Your task to perform on an android device: check storage Image 0: 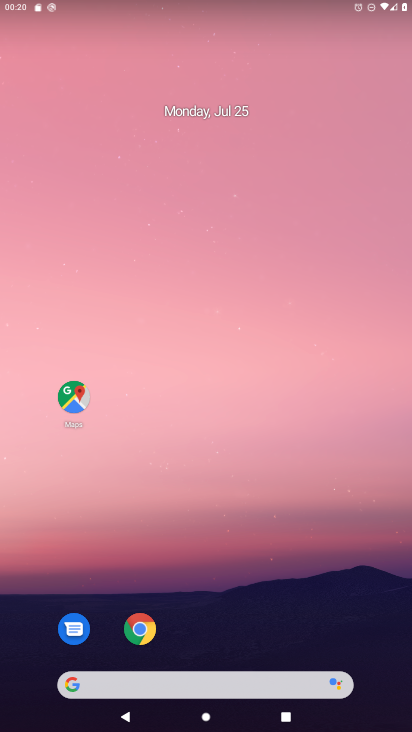
Step 0: drag from (196, 644) to (261, 236)
Your task to perform on an android device: check storage Image 1: 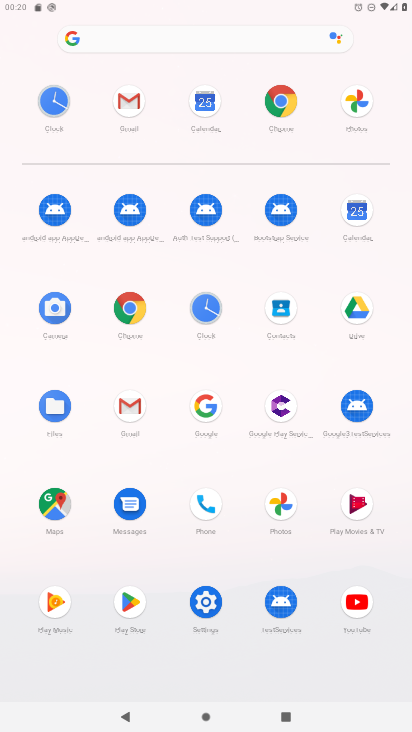
Step 1: click (202, 602)
Your task to perform on an android device: check storage Image 2: 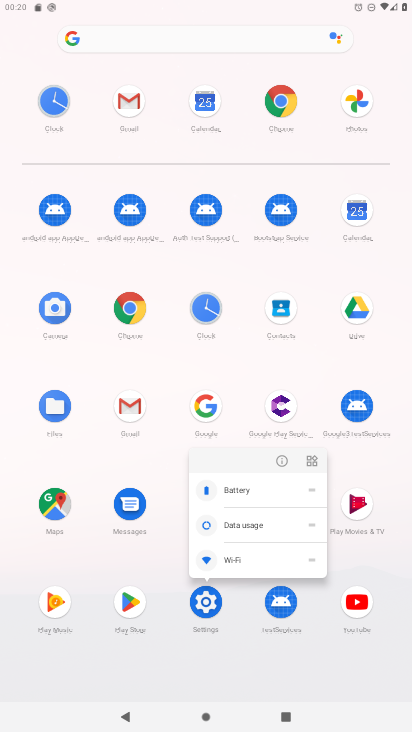
Step 2: click (283, 460)
Your task to perform on an android device: check storage Image 3: 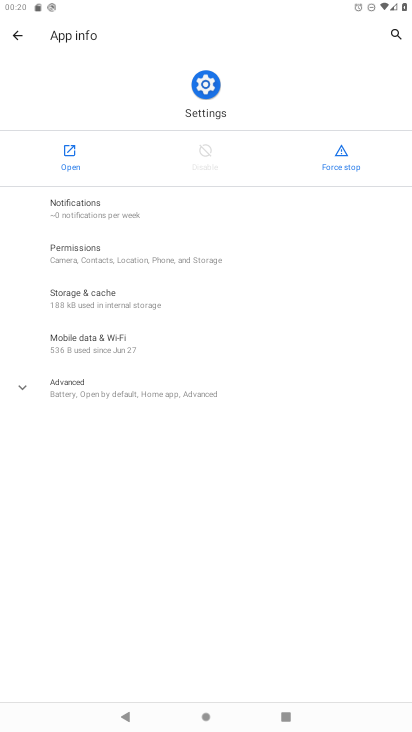
Step 3: click (66, 154)
Your task to perform on an android device: check storage Image 4: 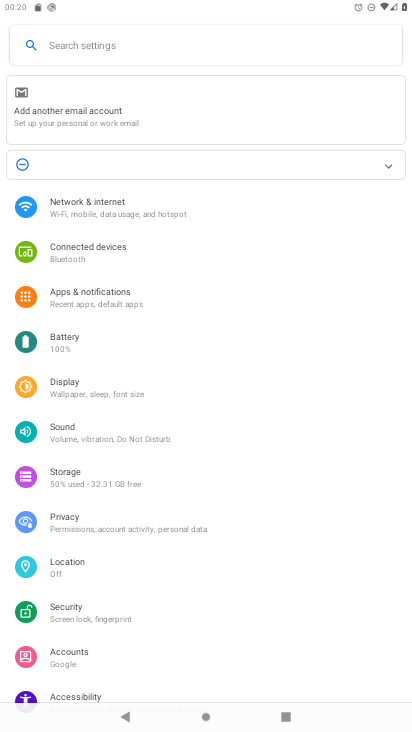
Step 4: click (79, 476)
Your task to perform on an android device: check storage Image 5: 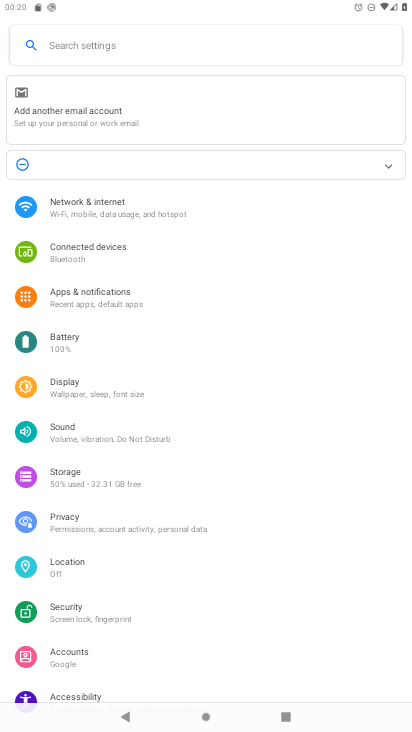
Step 5: click (79, 475)
Your task to perform on an android device: check storage Image 6: 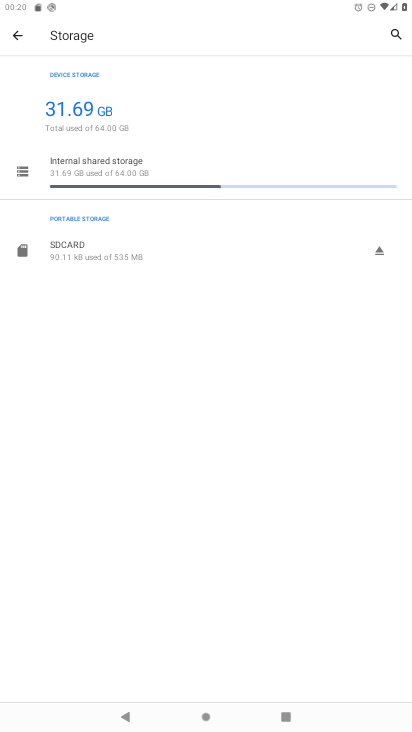
Step 6: task complete